Your task to perform on an android device: toggle priority inbox in the gmail app Image 0: 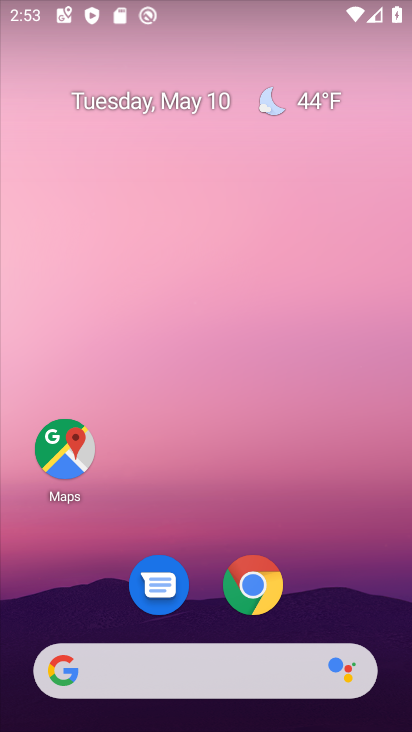
Step 0: drag from (327, 385) to (292, 2)
Your task to perform on an android device: toggle priority inbox in the gmail app Image 1: 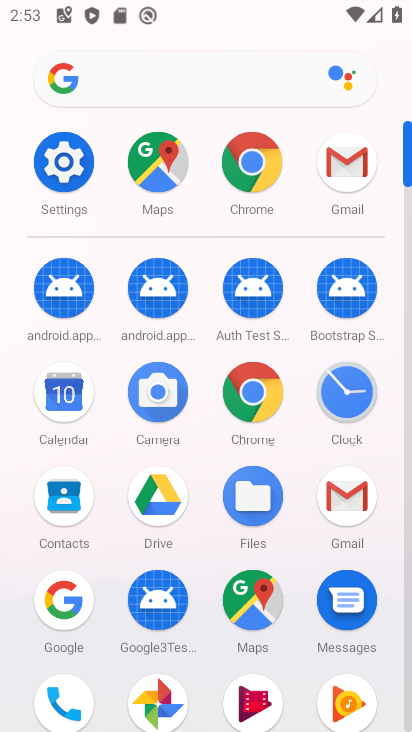
Step 1: click (343, 167)
Your task to perform on an android device: toggle priority inbox in the gmail app Image 2: 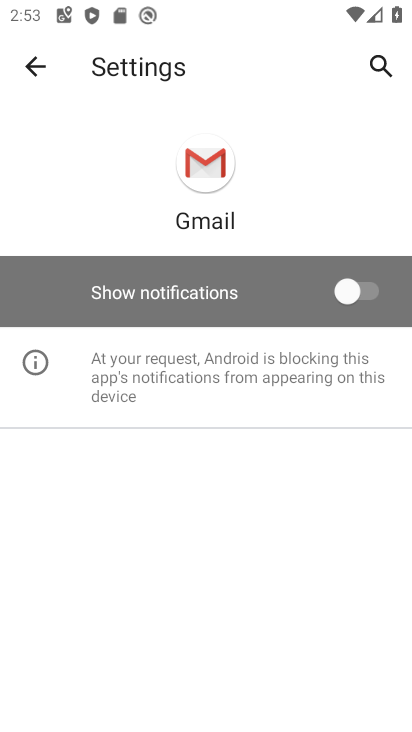
Step 2: click (37, 61)
Your task to perform on an android device: toggle priority inbox in the gmail app Image 3: 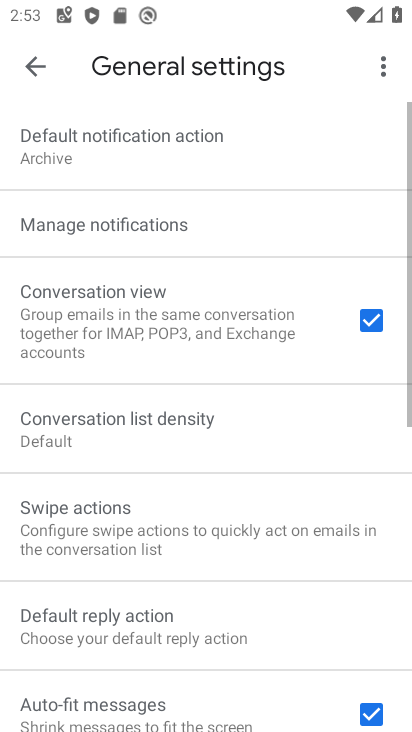
Step 3: click (39, 62)
Your task to perform on an android device: toggle priority inbox in the gmail app Image 4: 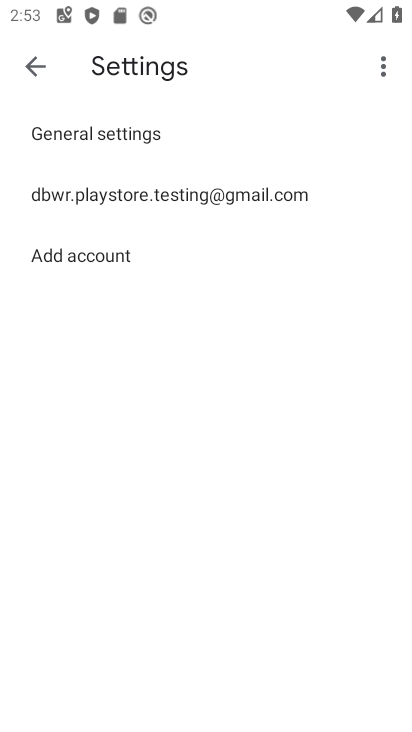
Step 4: click (39, 60)
Your task to perform on an android device: toggle priority inbox in the gmail app Image 5: 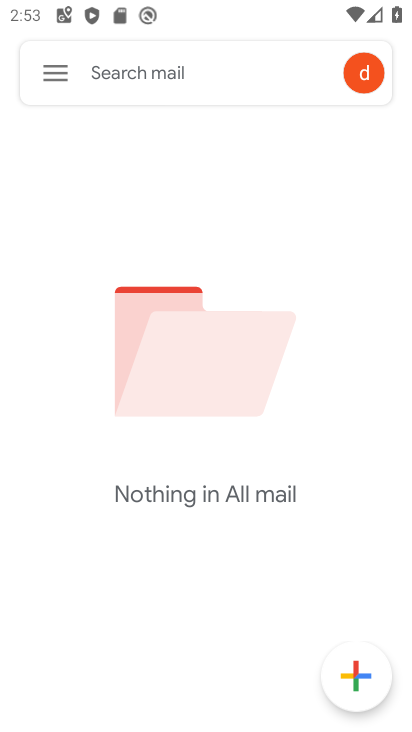
Step 5: click (56, 72)
Your task to perform on an android device: toggle priority inbox in the gmail app Image 6: 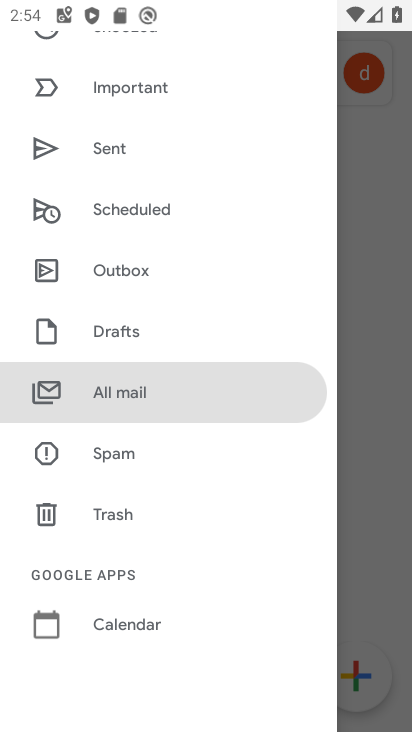
Step 6: drag from (171, 535) to (199, 137)
Your task to perform on an android device: toggle priority inbox in the gmail app Image 7: 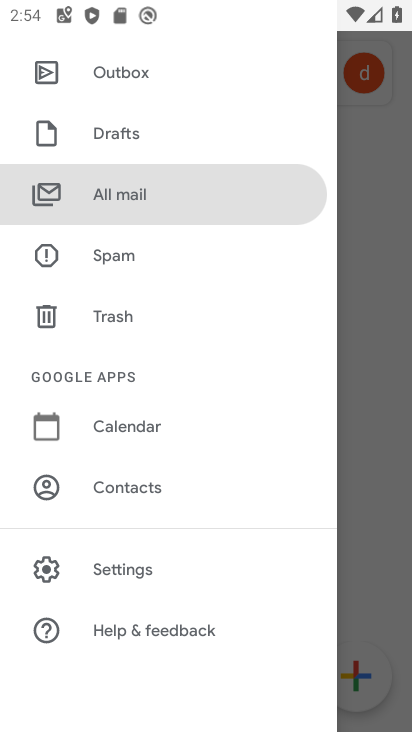
Step 7: click (150, 554)
Your task to perform on an android device: toggle priority inbox in the gmail app Image 8: 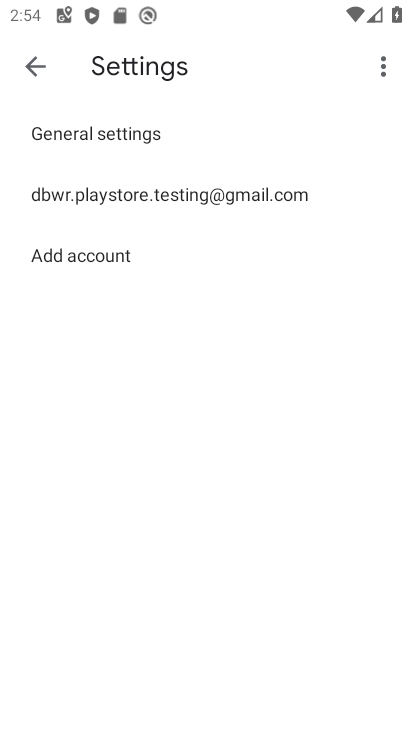
Step 8: click (216, 187)
Your task to perform on an android device: toggle priority inbox in the gmail app Image 9: 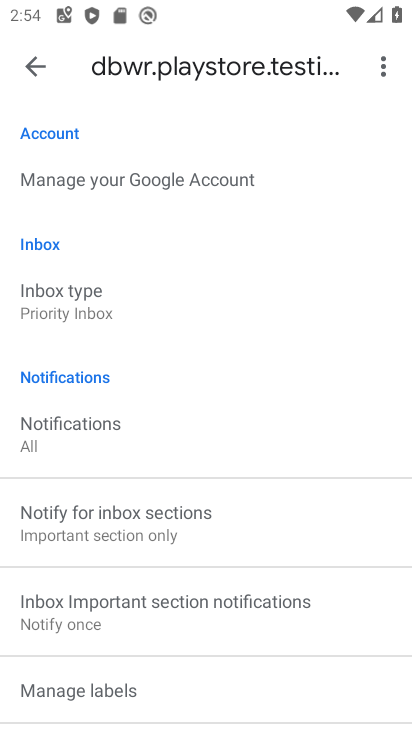
Step 9: click (100, 302)
Your task to perform on an android device: toggle priority inbox in the gmail app Image 10: 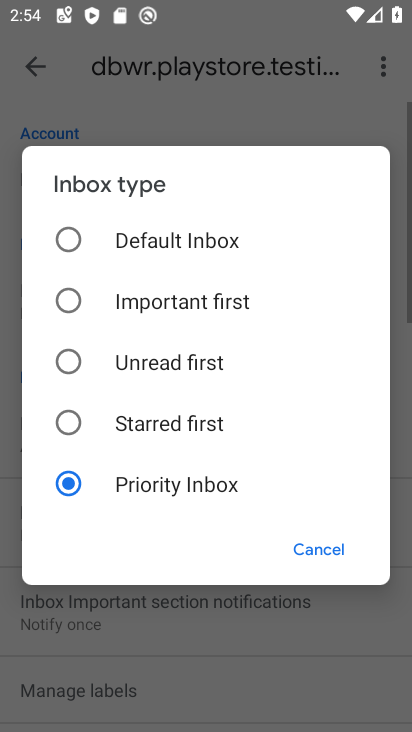
Step 10: click (105, 231)
Your task to perform on an android device: toggle priority inbox in the gmail app Image 11: 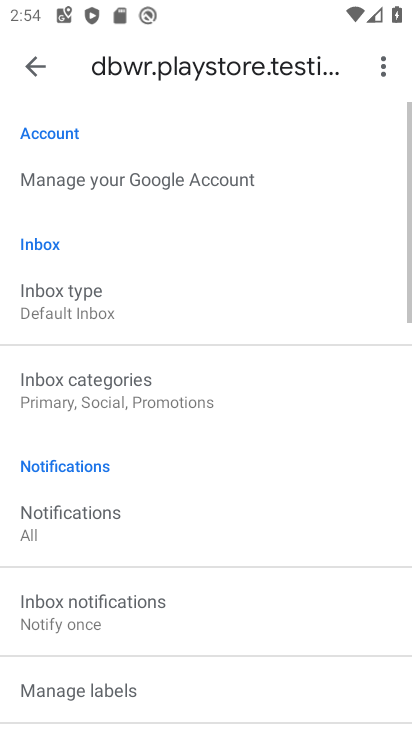
Step 11: task complete